Your task to perform on an android device: turn notification dots on Image 0: 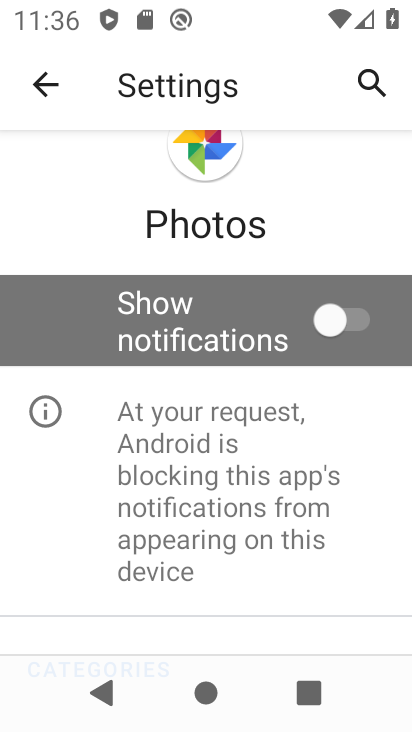
Step 0: press home button
Your task to perform on an android device: turn notification dots on Image 1: 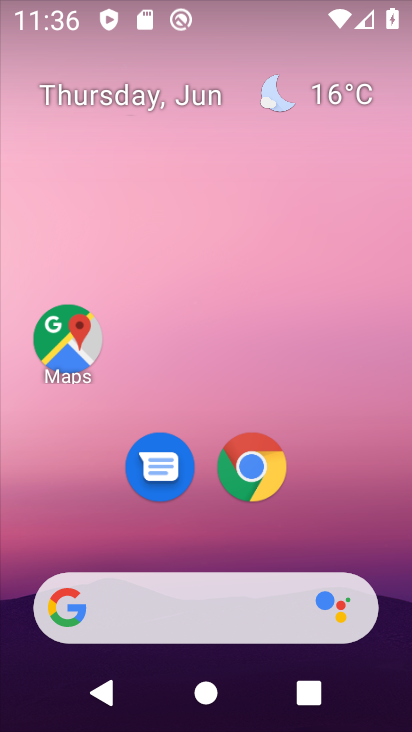
Step 1: drag from (402, 627) to (326, 138)
Your task to perform on an android device: turn notification dots on Image 2: 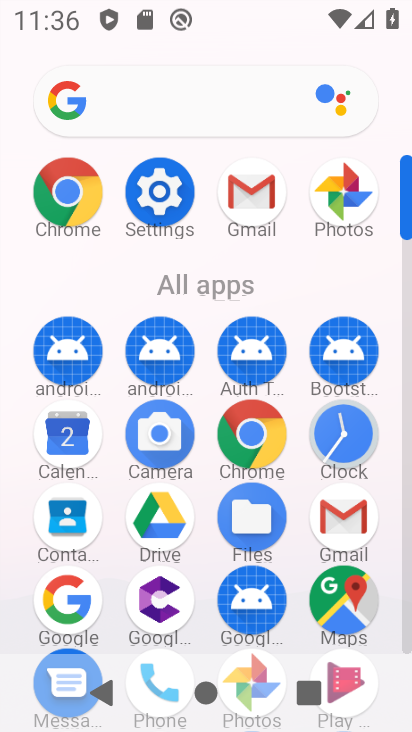
Step 2: click (407, 640)
Your task to perform on an android device: turn notification dots on Image 3: 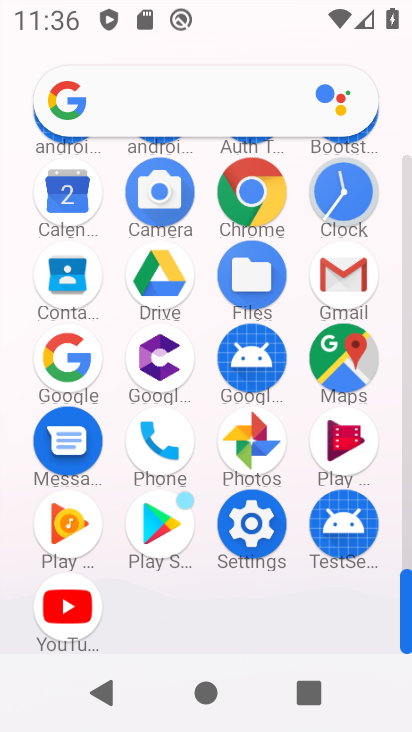
Step 3: click (249, 523)
Your task to perform on an android device: turn notification dots on Image 4: 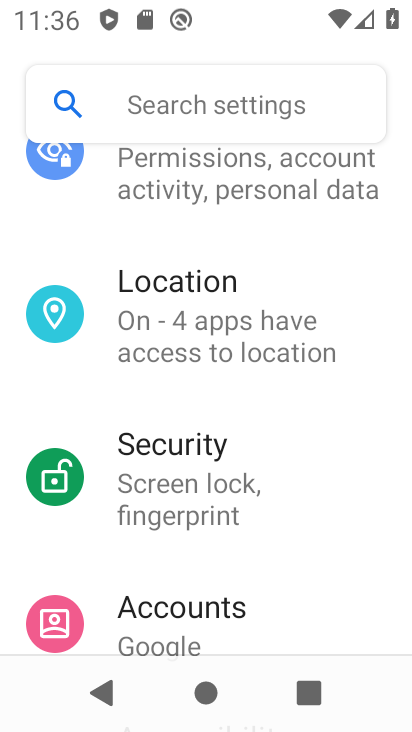
Step 4: drag from (385, 255) to (359, 468)
Your task to perform on an android device: turn notification dots on Image 5: 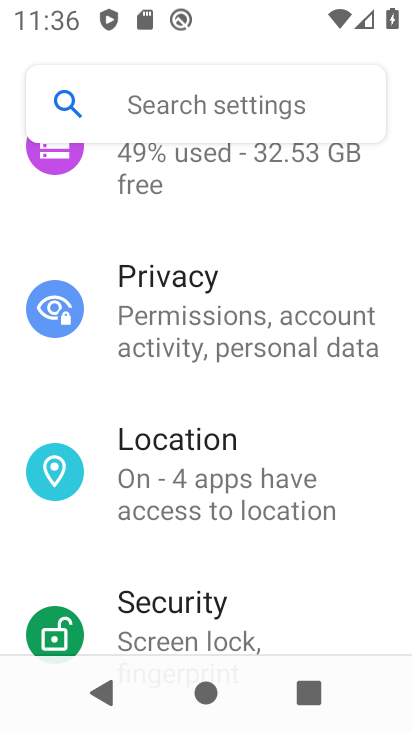
Step 5: drag from (359, 468) to (349, 585)
Your task to perform on an android device: turn notification dots on Image 6: 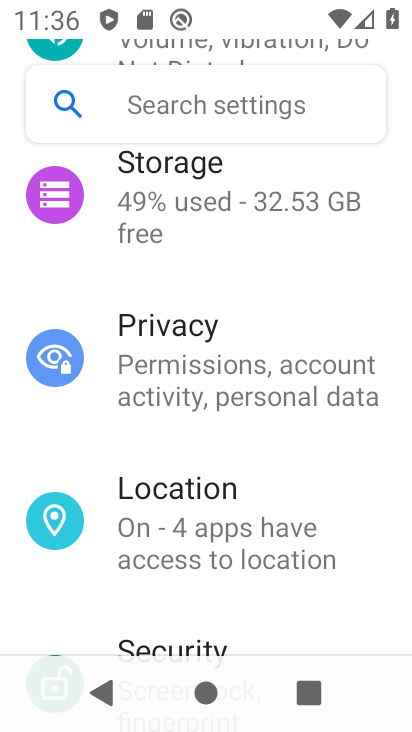
Step 6: drag from (375, 226) to (357, 523)
Your task to perform on an android device: turn notification dots on Image 7: 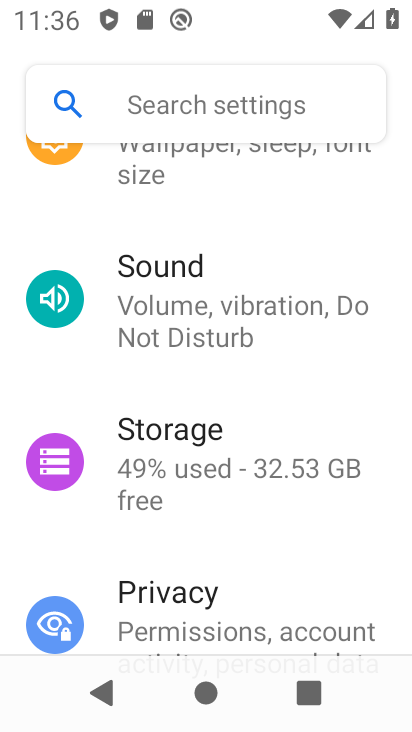
Step 7: drag from (376, 268) to (351, 644)
Your task to perform on an android device: turn notification dots on Image 8: 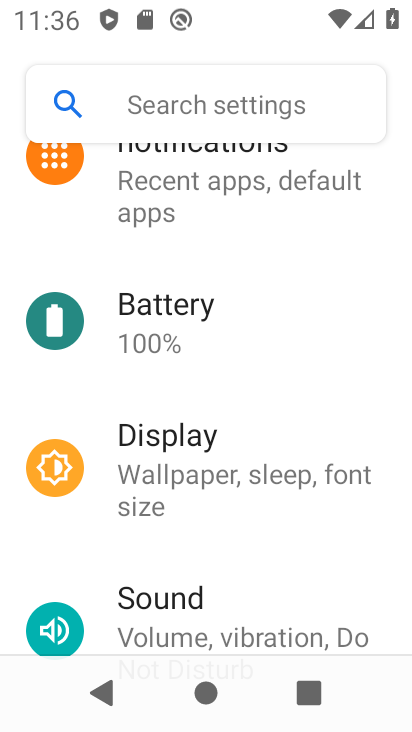
Step 8: drag from (371, 238) to (366, 483)
Your task to perform on an android device: turn notification dots on Image 9: 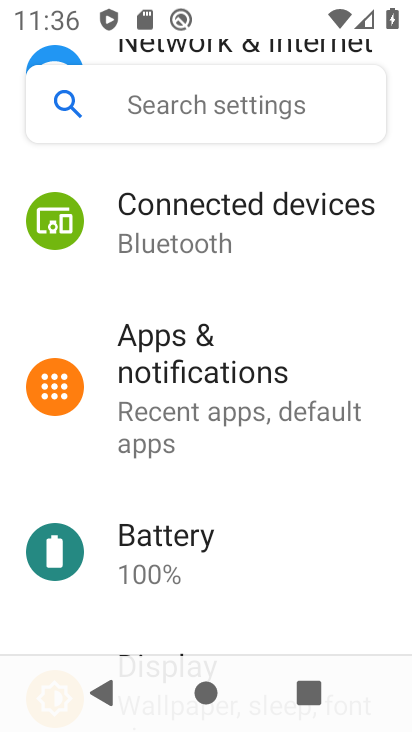
Step 9: click (174, 406)
Your task to perform on an android device: turn notification dots on Image 10: 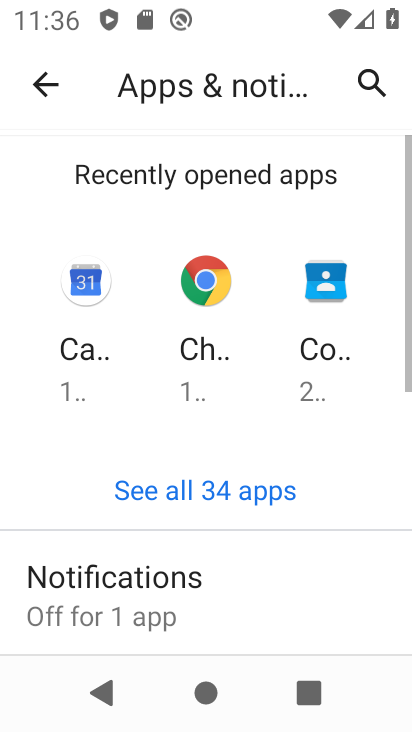
Step 10: drag from (252, 575) to (290, 184)
Your task to perform on an android device: turn notification dots on Image 11: 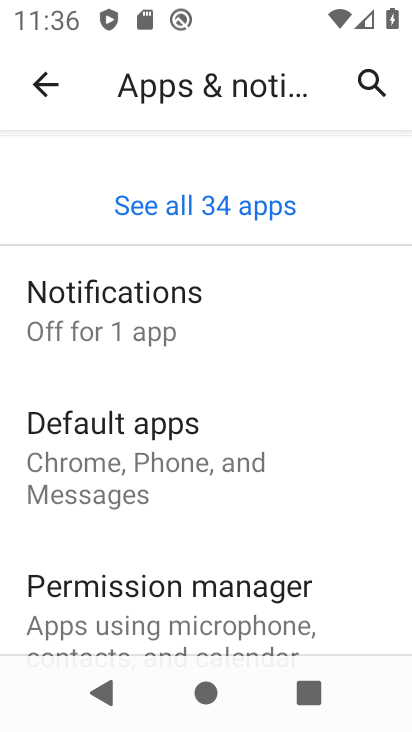
Step 11: drag from (251, 459) to (258, 203)
Your task to perform on an android device: turn notification dots on Image 12: 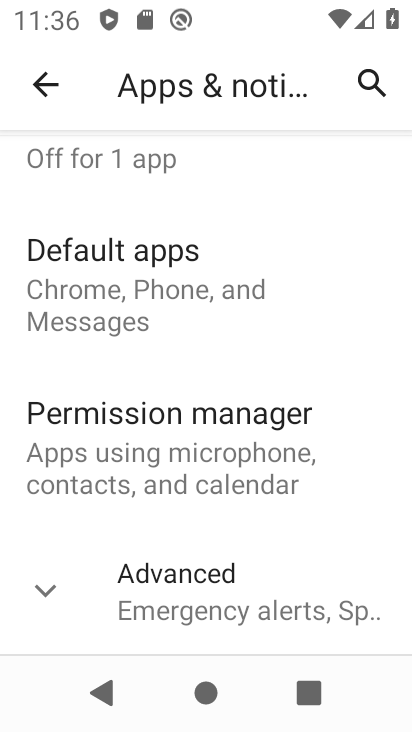
Step 12: drag from (258, 203) to (252, 340)
Your task to perform on an android device: turn notification dots on Image 13: 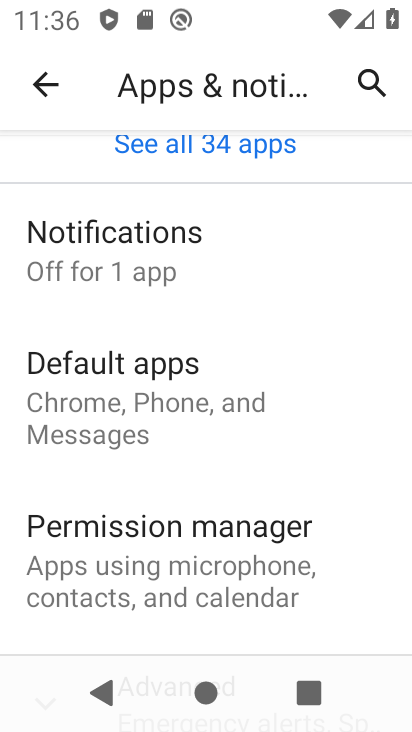
Step 13: click (46, 246)
Your task to perform on an android device: turn notification dots on Image 14: 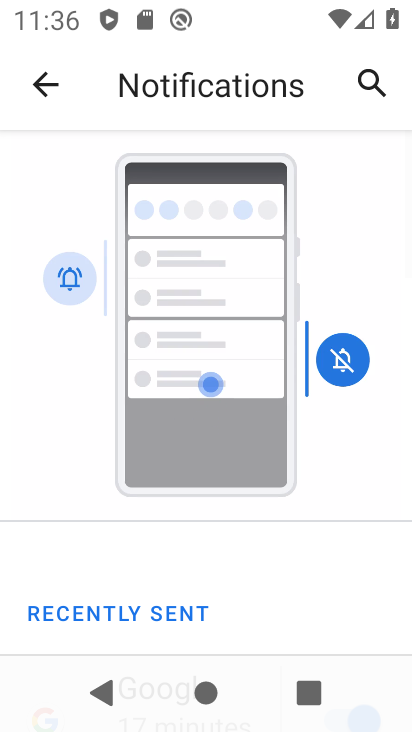
Step 14: drag from (268, 595) to (255, 149)
Your task to perform on an android device: turn notification dots on Image 15: 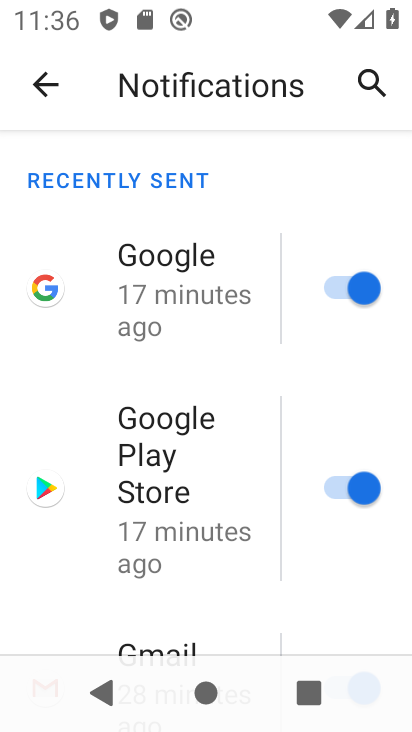
Step 15: drag from (272, 623) to (258, 123)
Your task to perform on an android device: turn notification dots on Image 16: 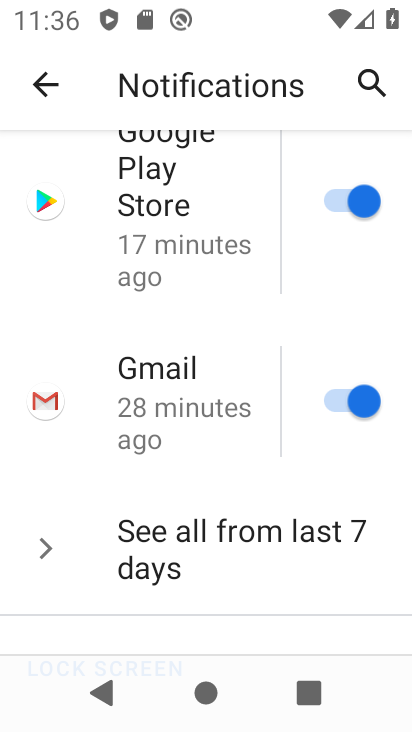
Step 16: drag from (271, 574) to (265, 135)
Your task to perform on an android device: turn notification dots on Image 17: 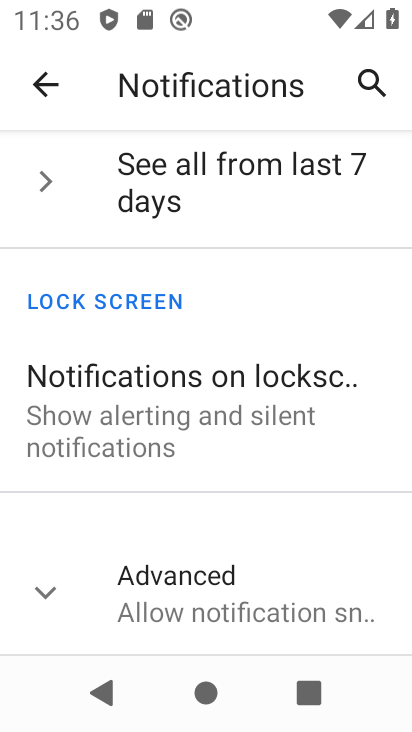
Step 17: click (45, 596)
Your task to perform on an android device: turn notification dots on Image 18: 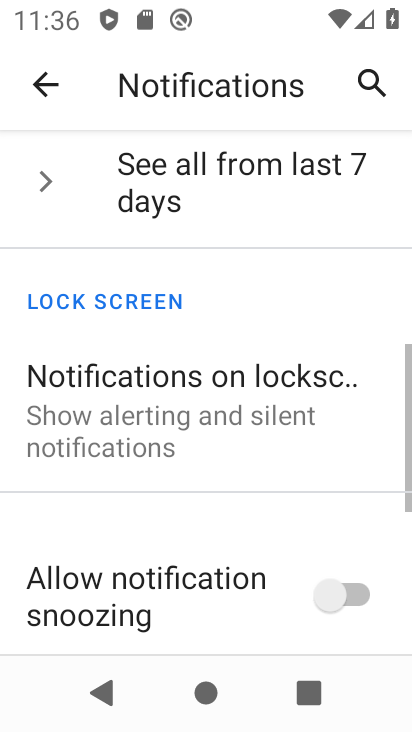
Step 18: task complete